Your task to perform on an android device: turn off priority inbox in the gmail app Image 0: 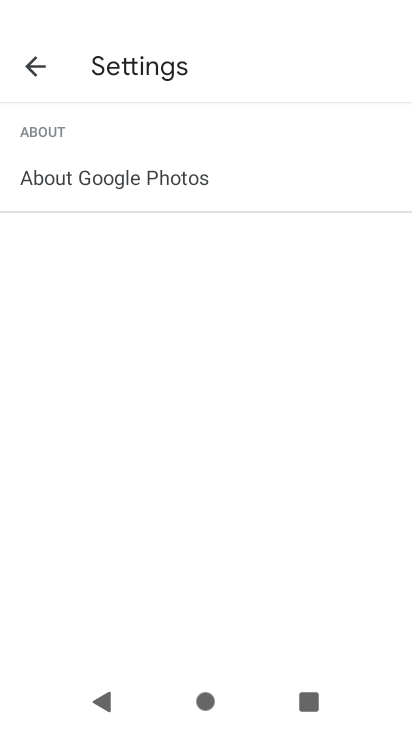
Step 0: press home button
Your task to perform on an android device: turn off priority inbox in the gmail app Image 1: 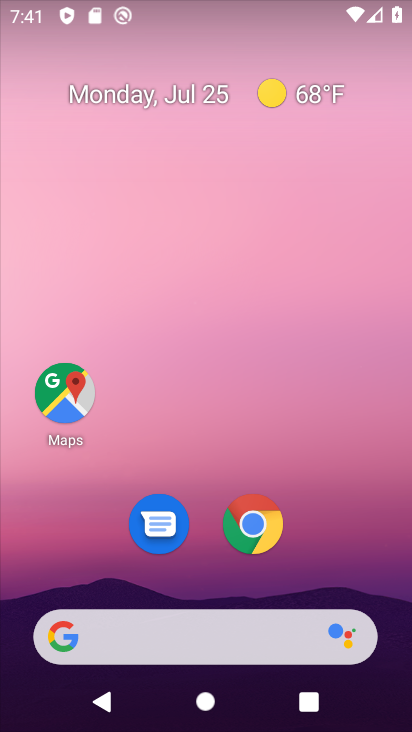
Step 1: drag from (338, 578) to (340, 61)
Your task to perform on an android device: turn off priority inbox in the gmail app Image 2: 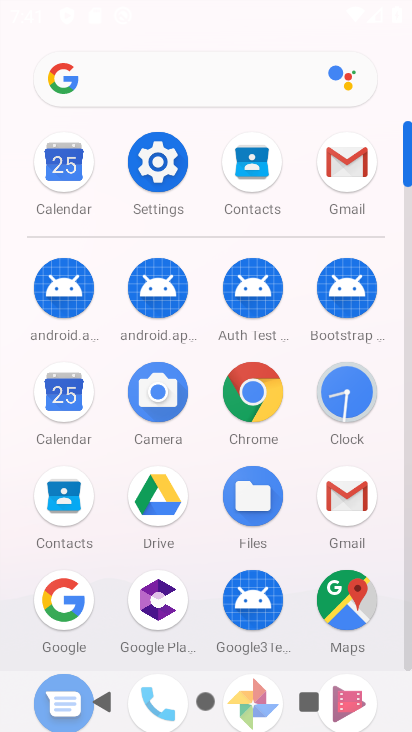
Step 2: click (345, 158)
Your task to perform on an android device: turn off priority inbox in the gmail app Image 3: 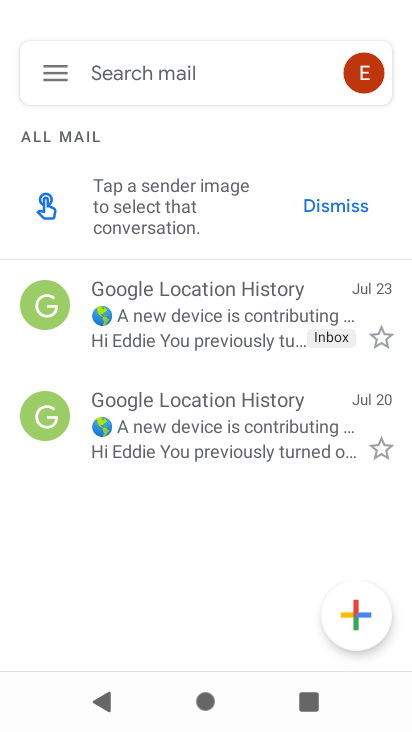
Step 3: click (60, 71)
Your task to perform on an android device: turn off priority inbox in the gmail app Image 4: 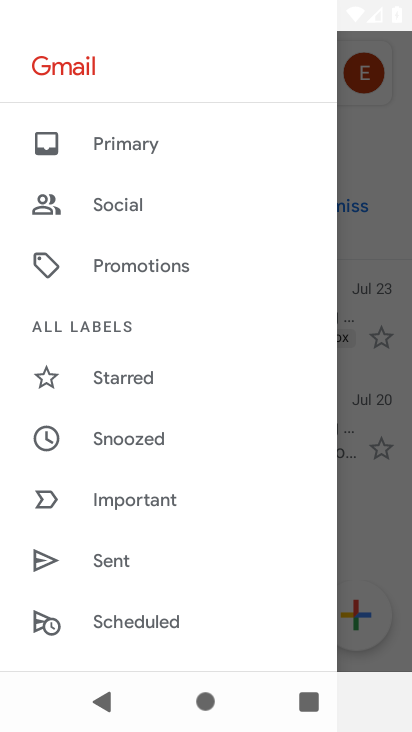
Step 4: drag from (166, 582) to (198, 41)
Your task to perform on an android device: turn off priority inbox in the gmail app Image 5: 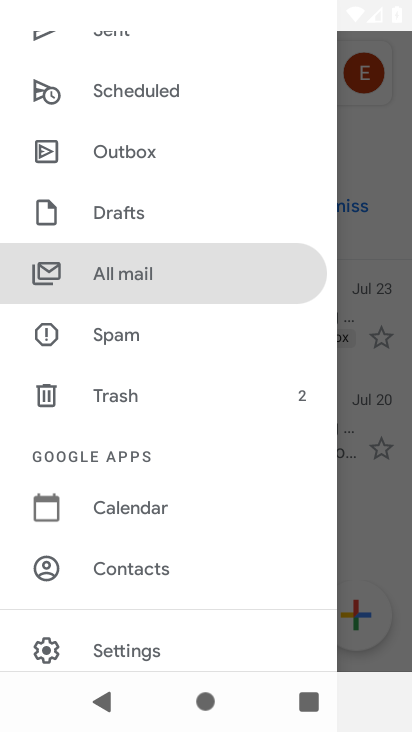
Step 5: click (137, 651)
Your task to perform on an android device: turn off priority inbox in the gmail app Image 6: 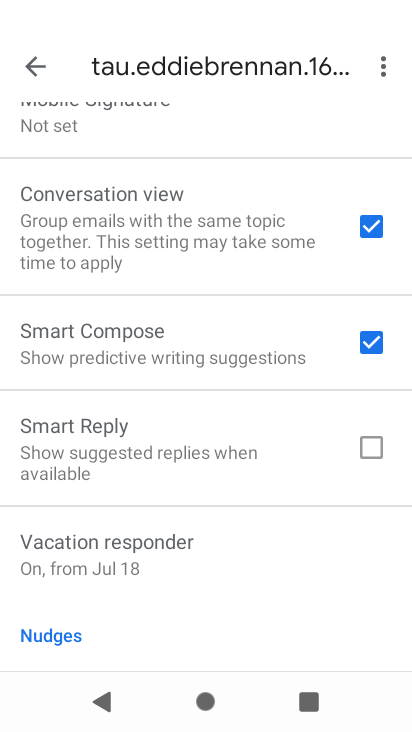
Step 6: drag from (204, 130) to (220, 672)
Your task to perform on an android device: turn off priority inbox in the gmail app Image 7: 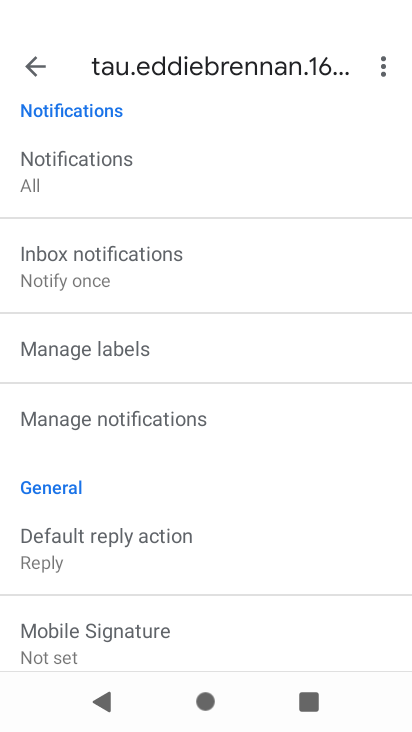
Step 7: drag from (191, 163) to (205, 574)
Your task to perform on an android device: turn off priority inbox in the gmail app Image 8: 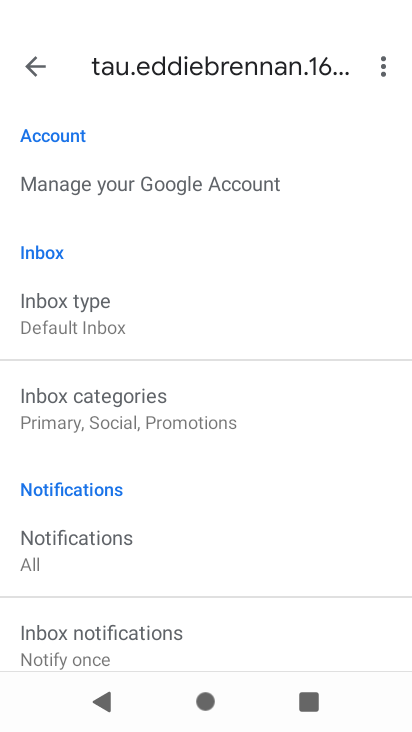
Step 8: click (89, 298)
Your task to perform on an android device: turn off priority inbox in the gmail app Image 9: 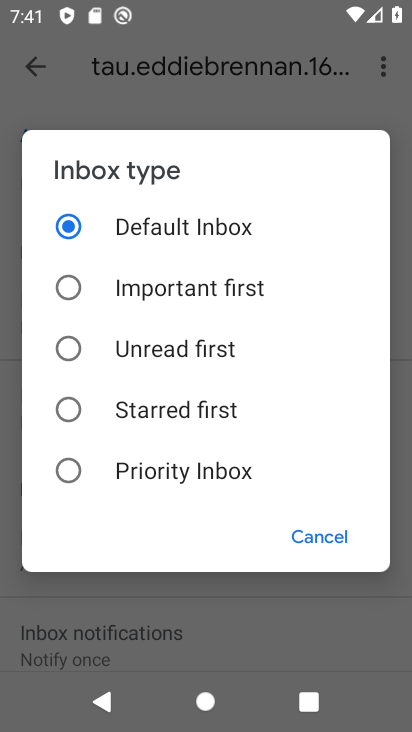
Step 9: click (72, 225)
Your task to perform on an android device: turn off priority inbox in the gmail app Image 10: 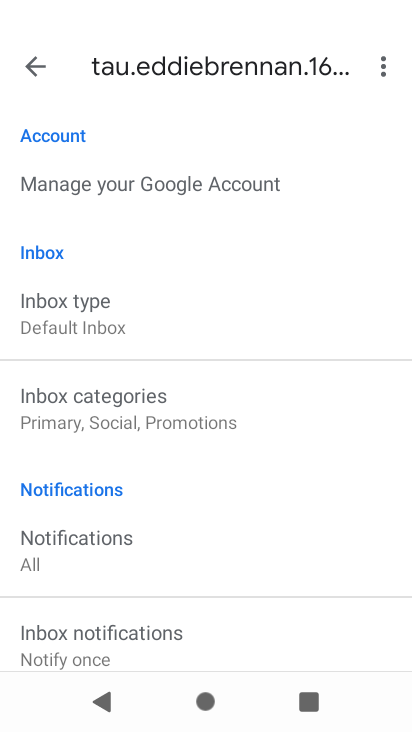
Step 10: task complete